Your task to perform on an android device: toggle show notifications on the lock screen Image 0: 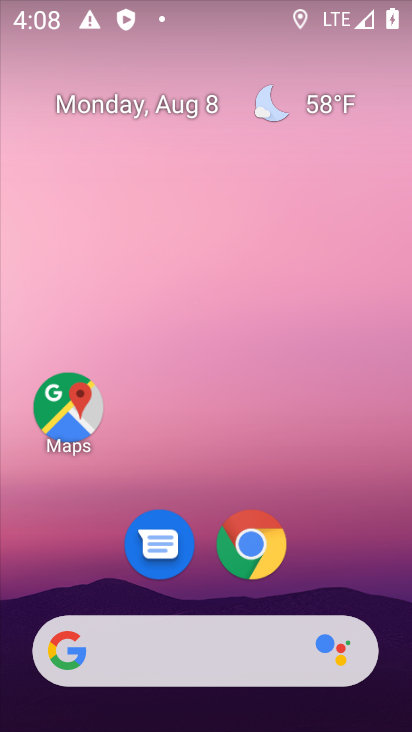
Step 0: drag from (242, 520) to (245, 0)
Your task to perform on an android device: toggle show notifications on the lock screen Image 1: 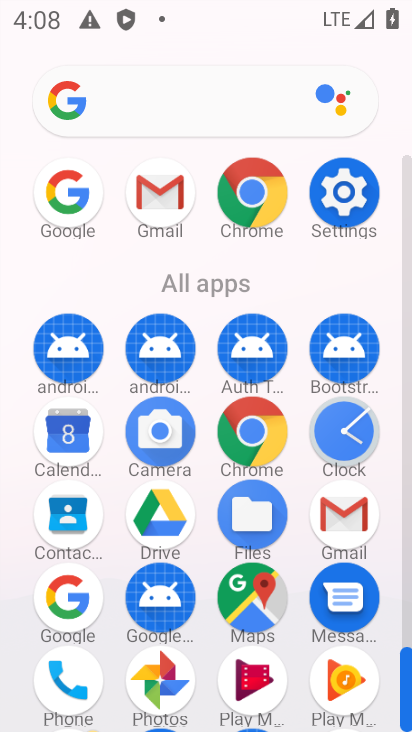
Step 1: click (353, 183)
Your task to perform on an android device: toggle show notifications on the lock screen Image 2: 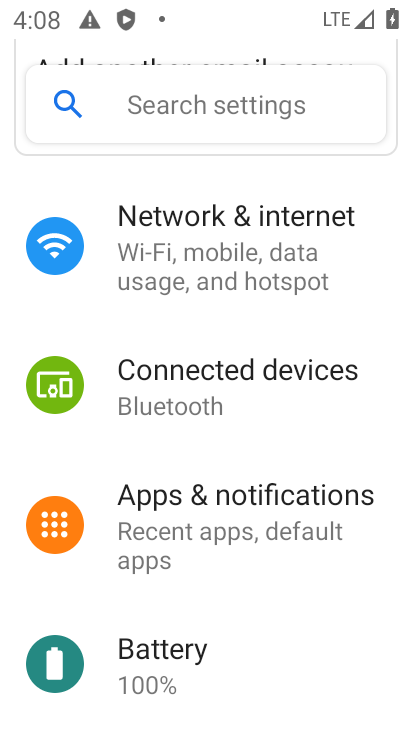
Step 2: click (268, 498)
Your task to perform on an android device: toggle show notifications on the lock screen Image 3: 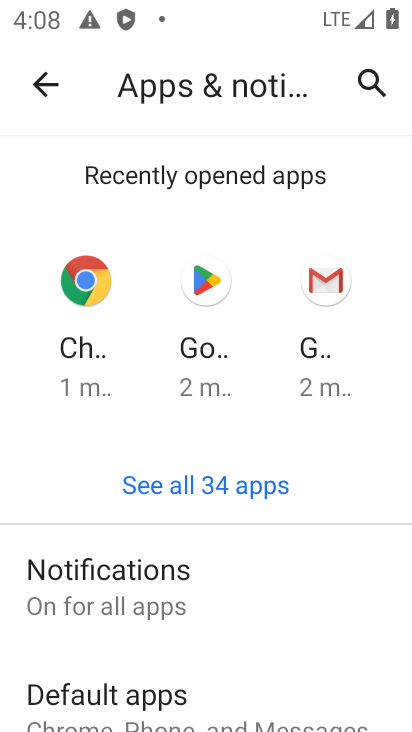
Step 3: click (173, 593)
Your task to perform on an android device: toggle show notifications on the lock screen Image 4: 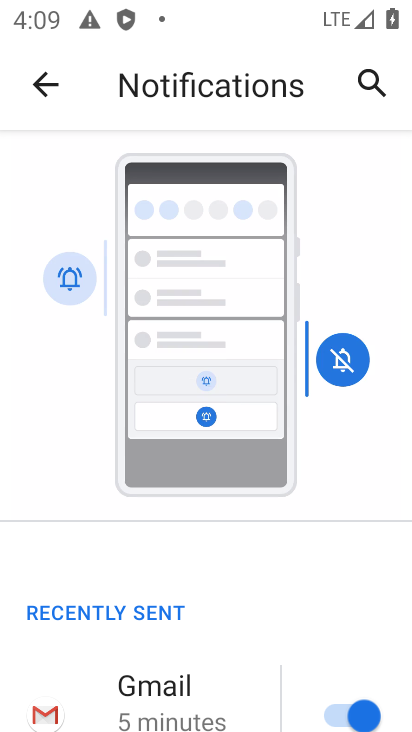
Step 4: drag from (210, 625) to (227, 144)
Your task to perform on an android device: toggle show notifications on the lock screen Image 5: 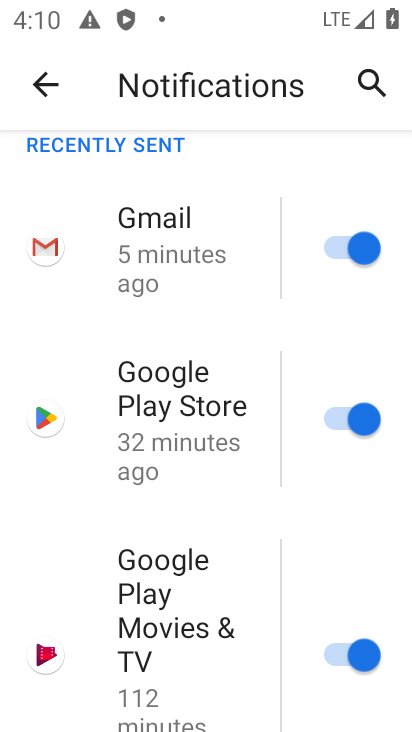
Step 5: drag from (197, 540) to (253, 75)
Your task to perform on an android device: toggle show notifications on the lock screen Image 6: 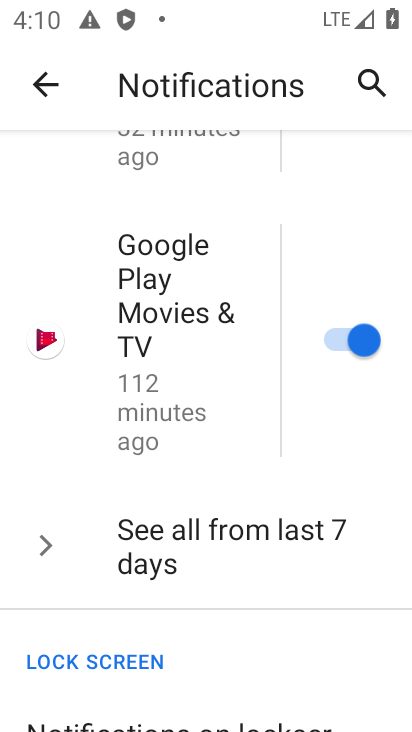
Step 6: drag from (220, 647) to (269, 278)
Your task to perform on an android device: toggle show notifications on the lock screen Image 7: 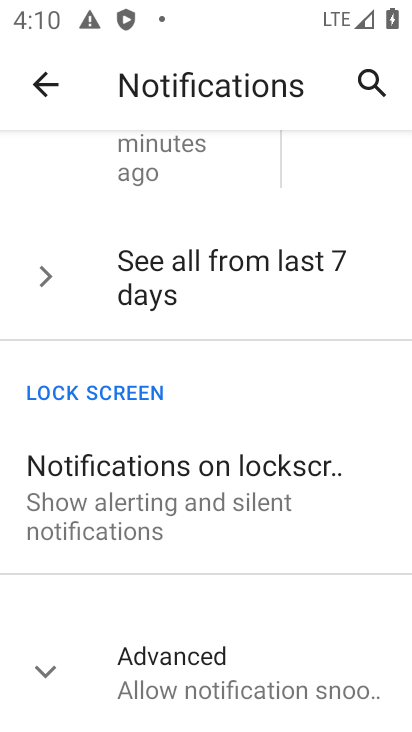
Step 7: click (225, 501)
Your task to perform on an android device: toggle show notifications on the lock screen Image 8: 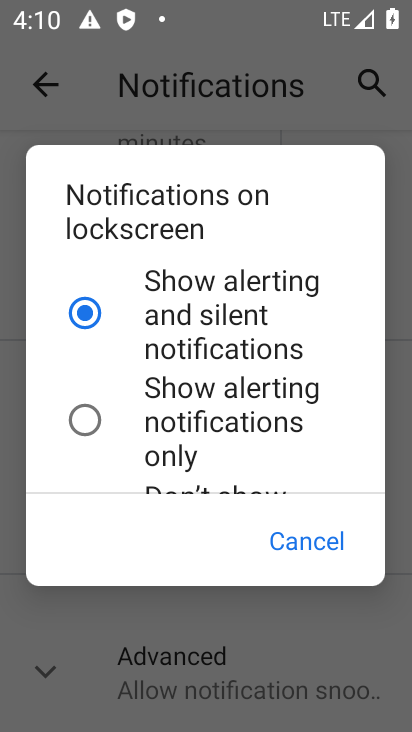
Step 8: drag from (140, 366) to (186, 30)
Your task to perform on an android device: toggle show notifications on the lock screen Image 9: 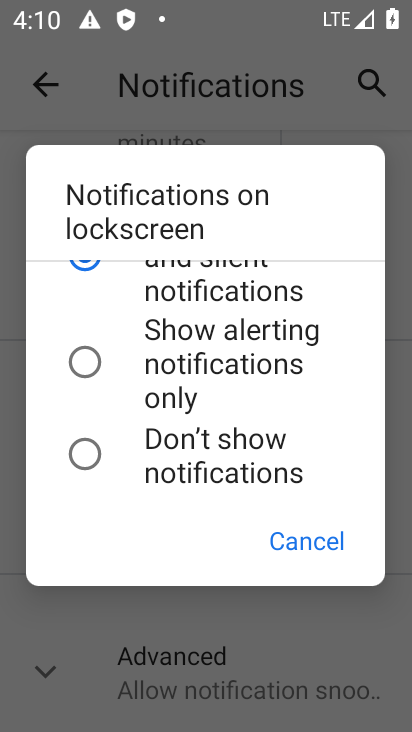
Step 9: click (152, 455)
Your task to perform on an android device: toggle show notifications on the lock screen Image 10: 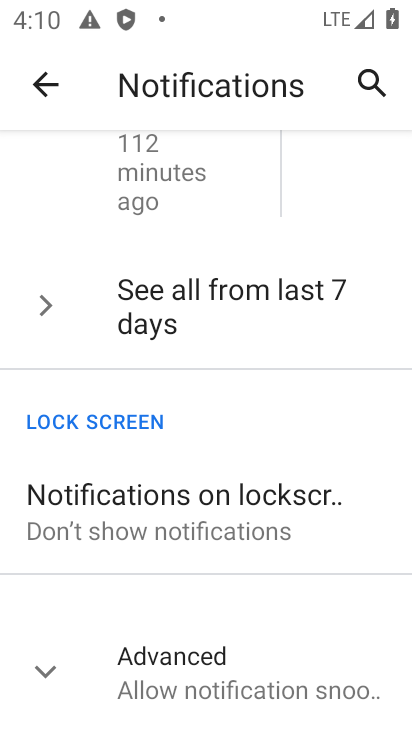
Step 10: task complete